Your task to perform on an android device: Go to location settings Image 0: 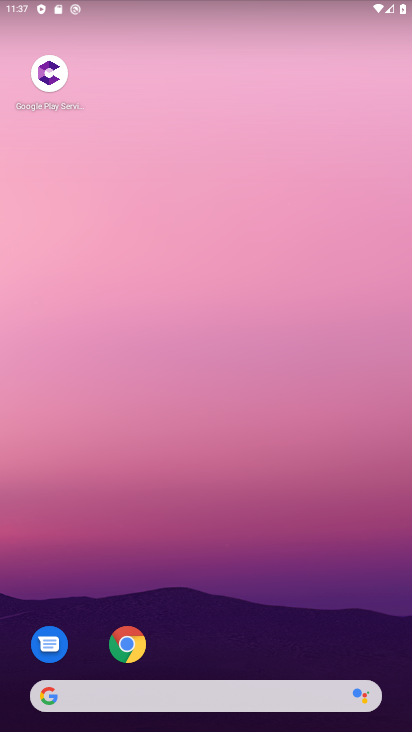
Step 0: drag from (190, 627) to (314, 143)
Your task to perform on an android device: Go to location settings Image 1: 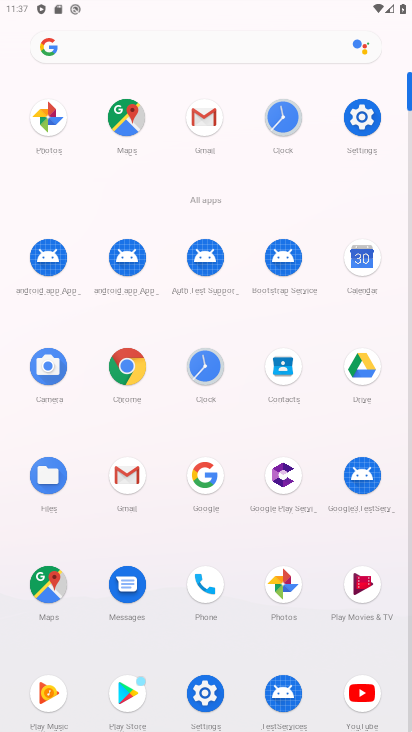
Step 1: click (201, 703)
Your task to perform on an android device: Go to location settings Image 2: 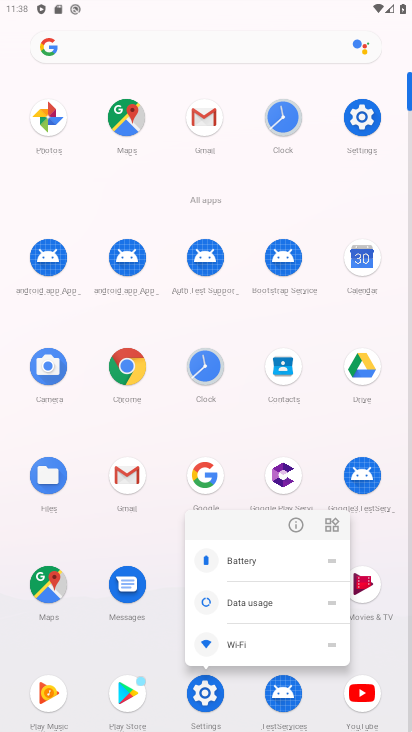
Step 2: click (299, 523)
Your task to perform on an android device: Go to location settings Image 3: 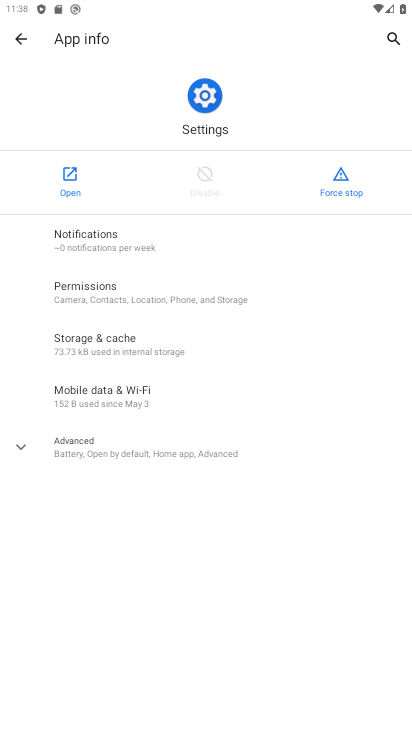
Step 3: click (82, 185)
Your task to perform on an android device: Go to location settings Image 4: 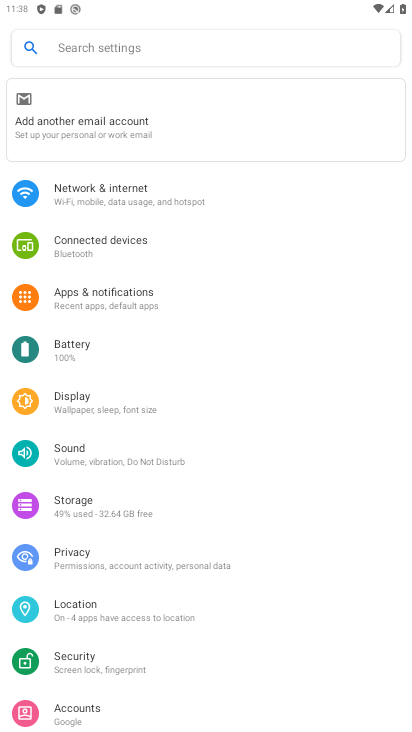
Step 4: click (112, 608)
Your task to perform on an android device: Go to location settings Image 5: 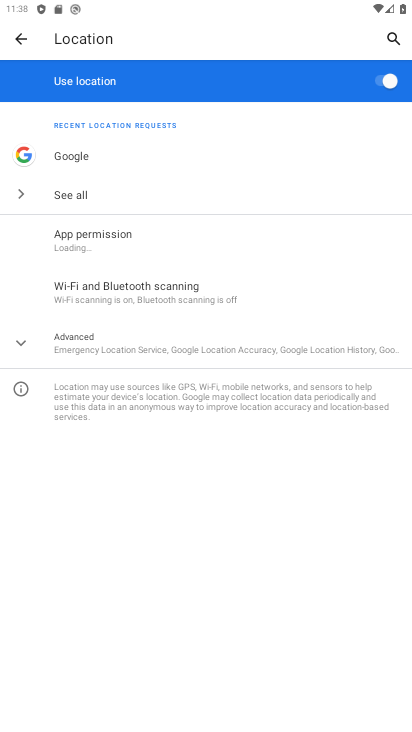
Step 5: drag from (113, 604) to (217, 112)
Your task to perform on an android device: Go to location settings Image 6: 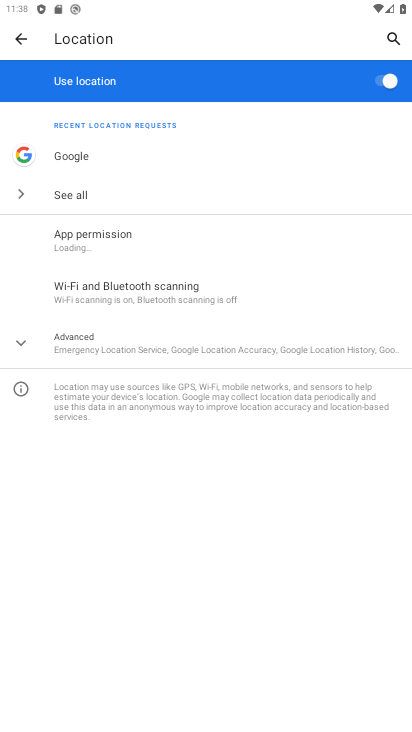
Step 6: click (119, 349)
Your task to perform on an android device: Go to location settings Image 7: 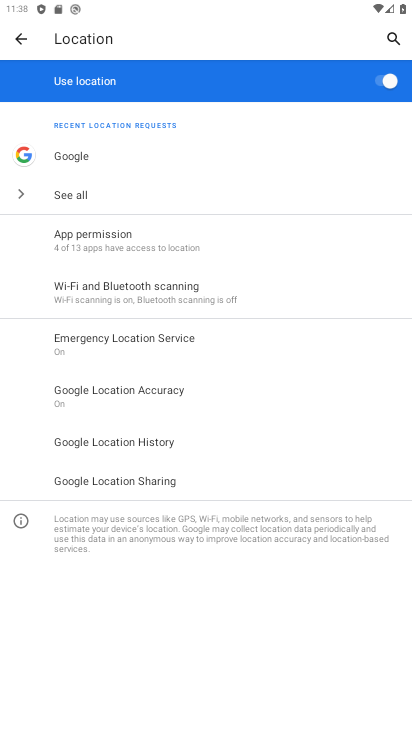
Step 7: task complete